Your task to perform on an android device: Turn on the flashlight Image 0: 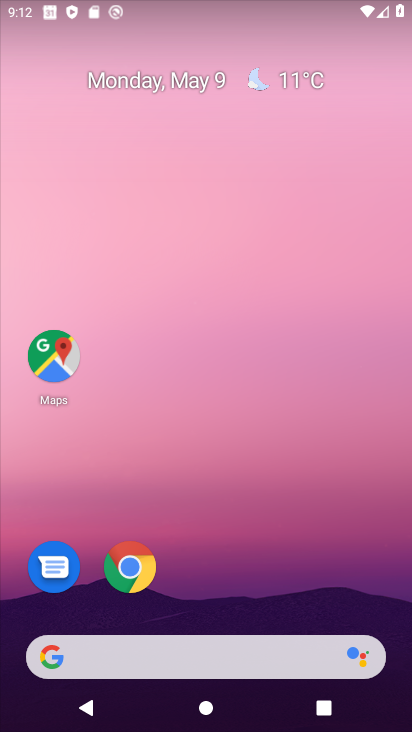
Step 0: drag from (292, 550) to (272, 36)
Your task to perform on an android device: Turn on the flashlight Image 1: 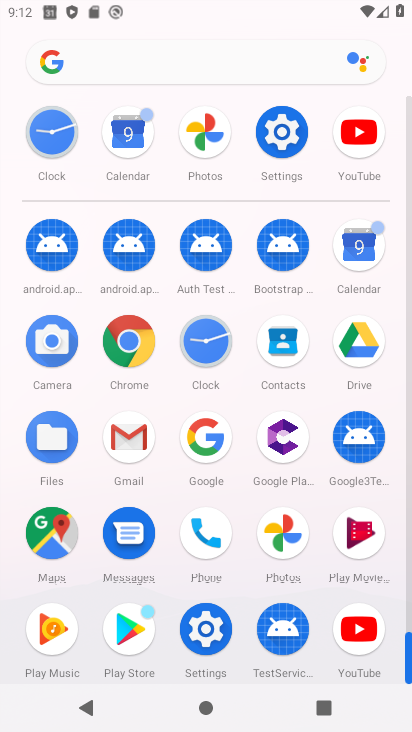
Step 1: click (283, 120)
Your task to perform on an android device: Turn on the flashlight Image 2: 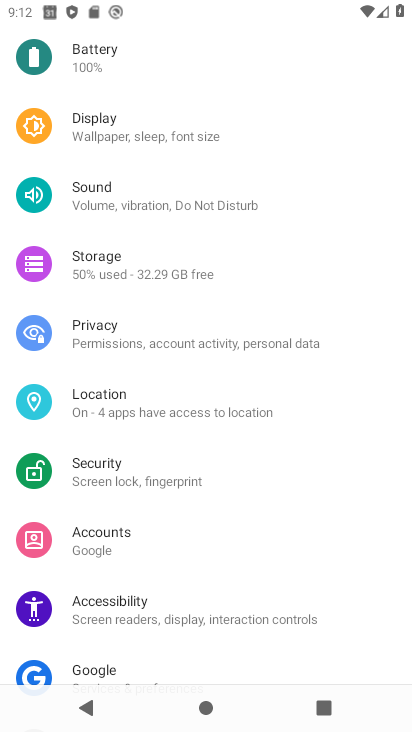
Step 2: drag from (203, 155) to (208, 692)
Your task to perform on an android device: Turn on the flashlight Image 3: 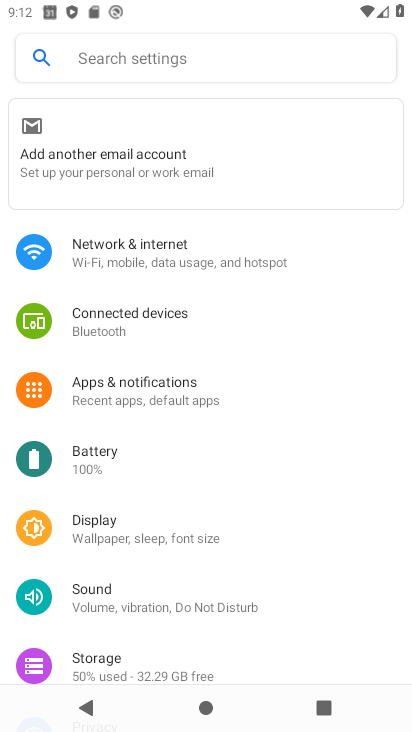
Step 3: click (176, 54)
Your task to perform on an android device: Turn on the flashlight Image 4: 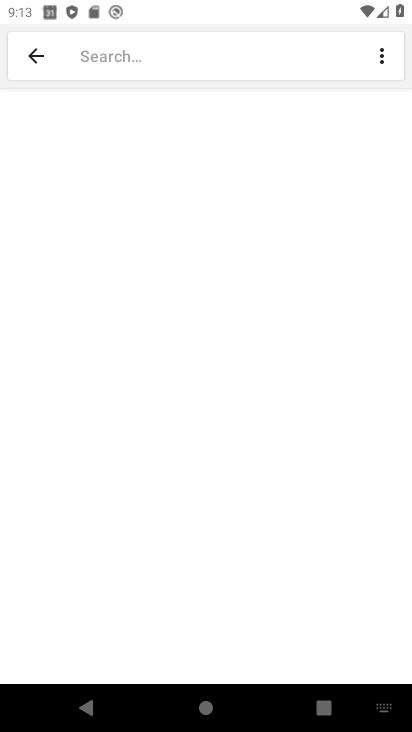
Step 4: type "Flashlight"
Your task to perform on an android device: Turn on the flashlight Image 5: 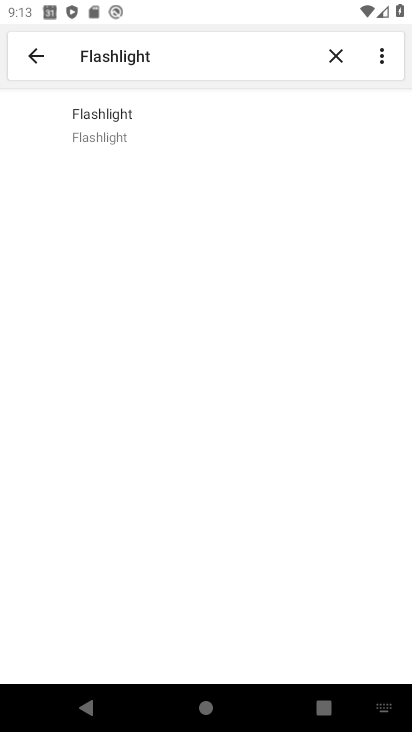
Step 5: click (85, 117)
Your task to perform on an android device: Turn on the flashlight Image 6: 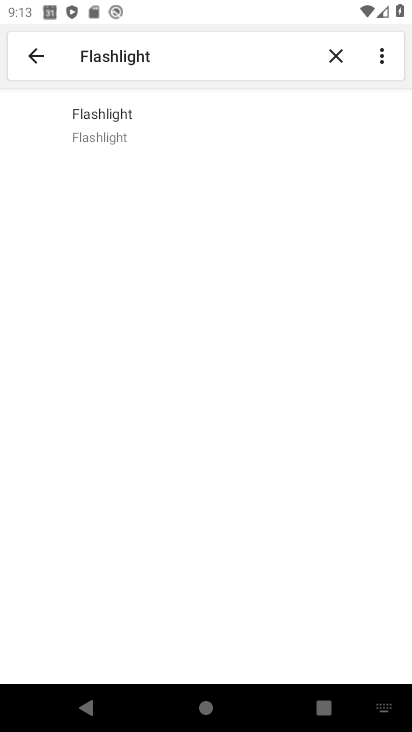
Step 6: task complete